Your task to perform on an android device: Open Google Chrome Image 0: 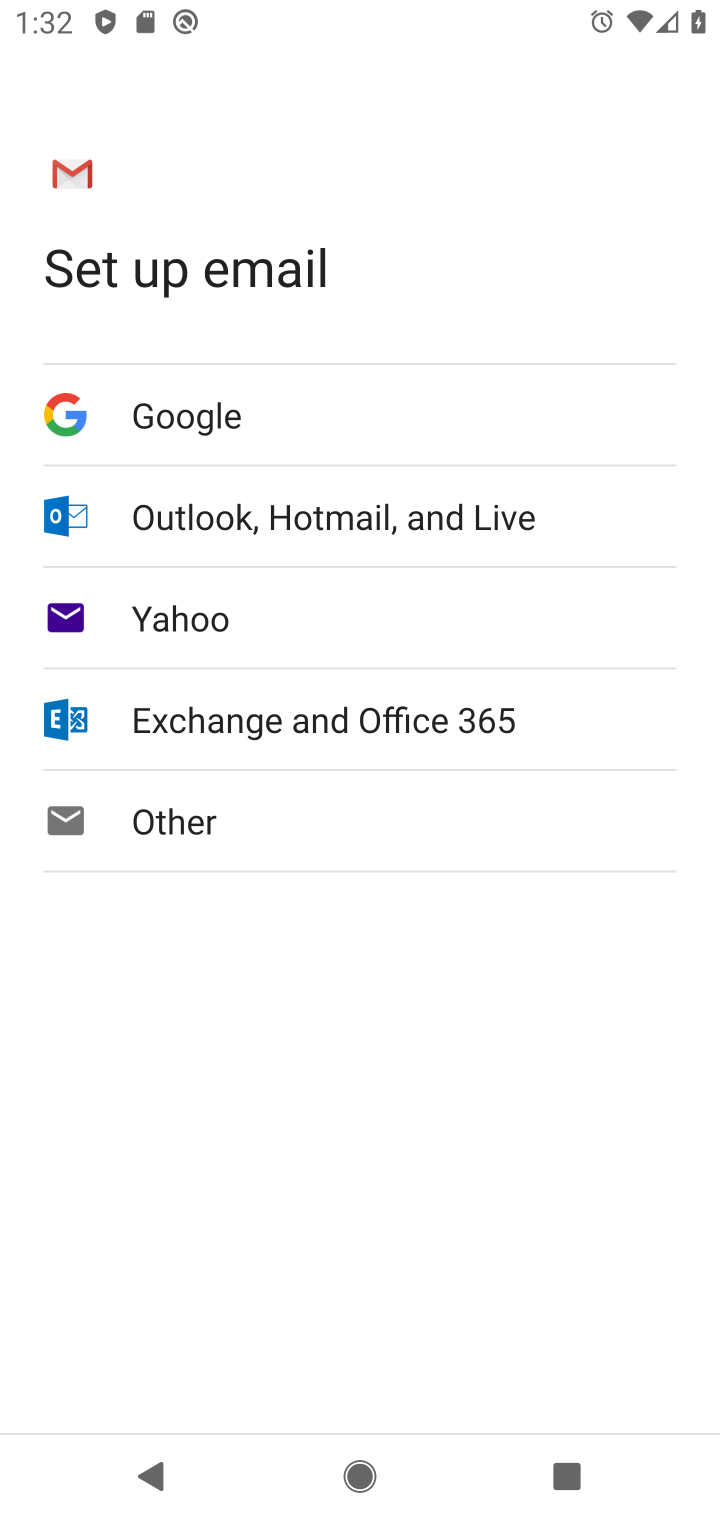
Step 0: press home button
Your task to perform on an android device: Open Google Chrome Image 1: 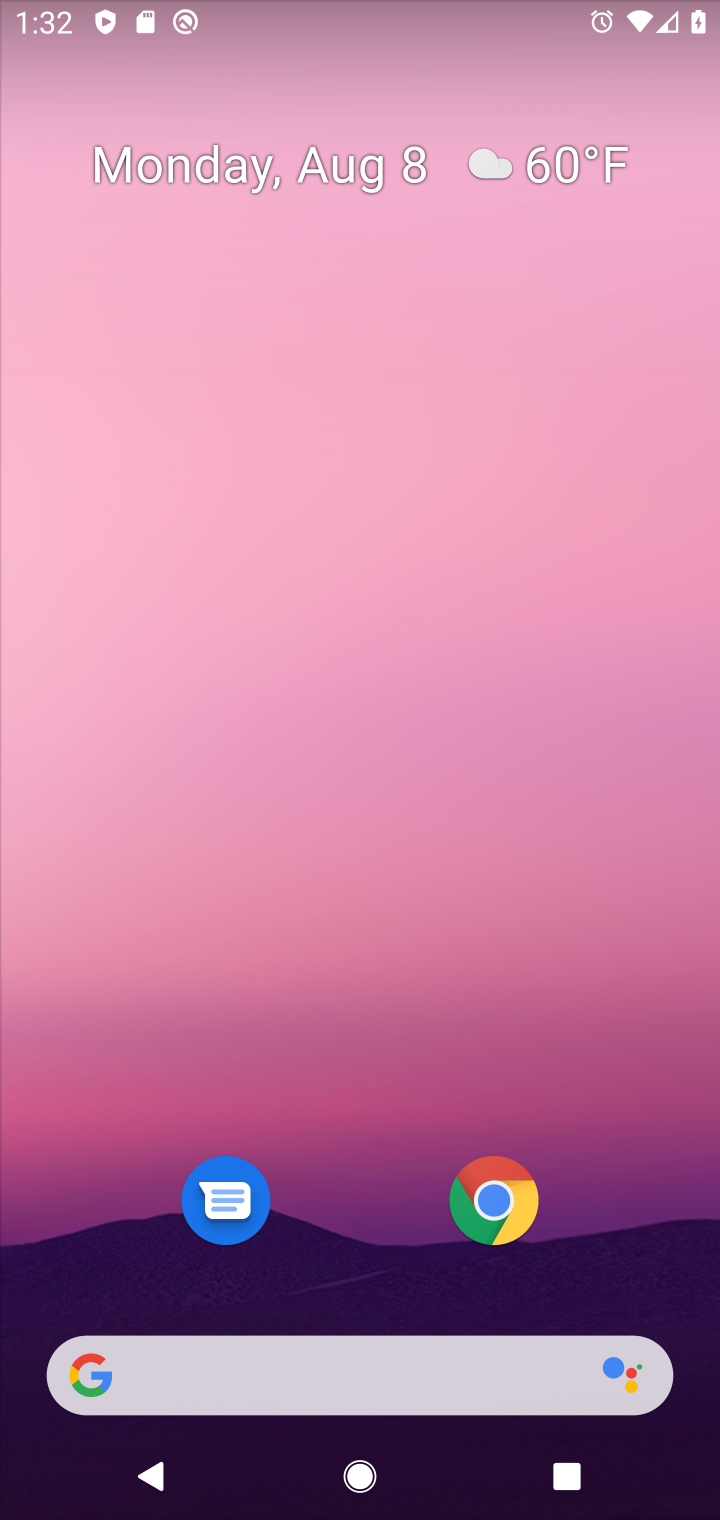
Step 1: click (488, 1193)
Your task to perform on an android device: Open Google Chrome Image 2: 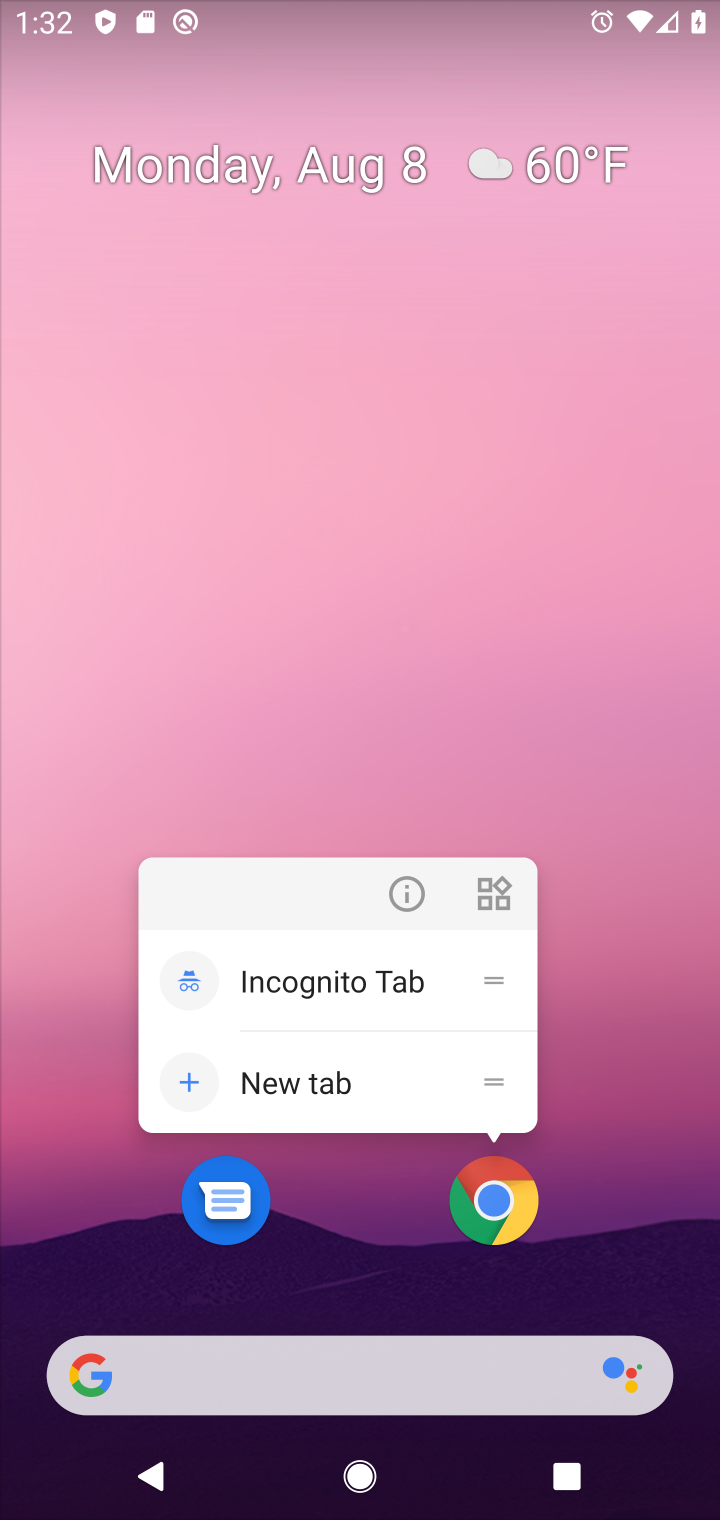
Step 2: click (481, 1195)
Your task to perform on an android device: Open Google Chrome Image 3: 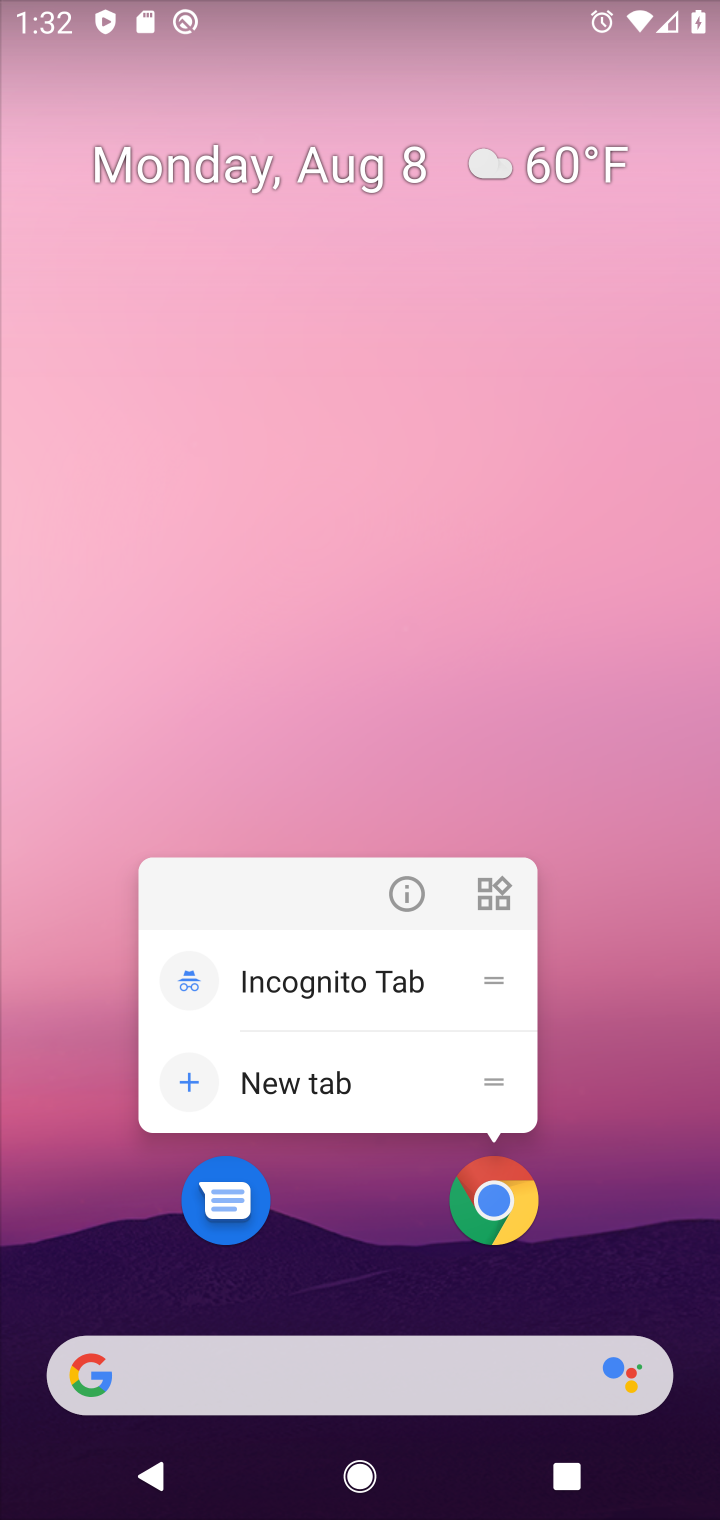
Step 3: click (541, 1242)
Your task to perform on an android device: Open Google Chrome Image 4: 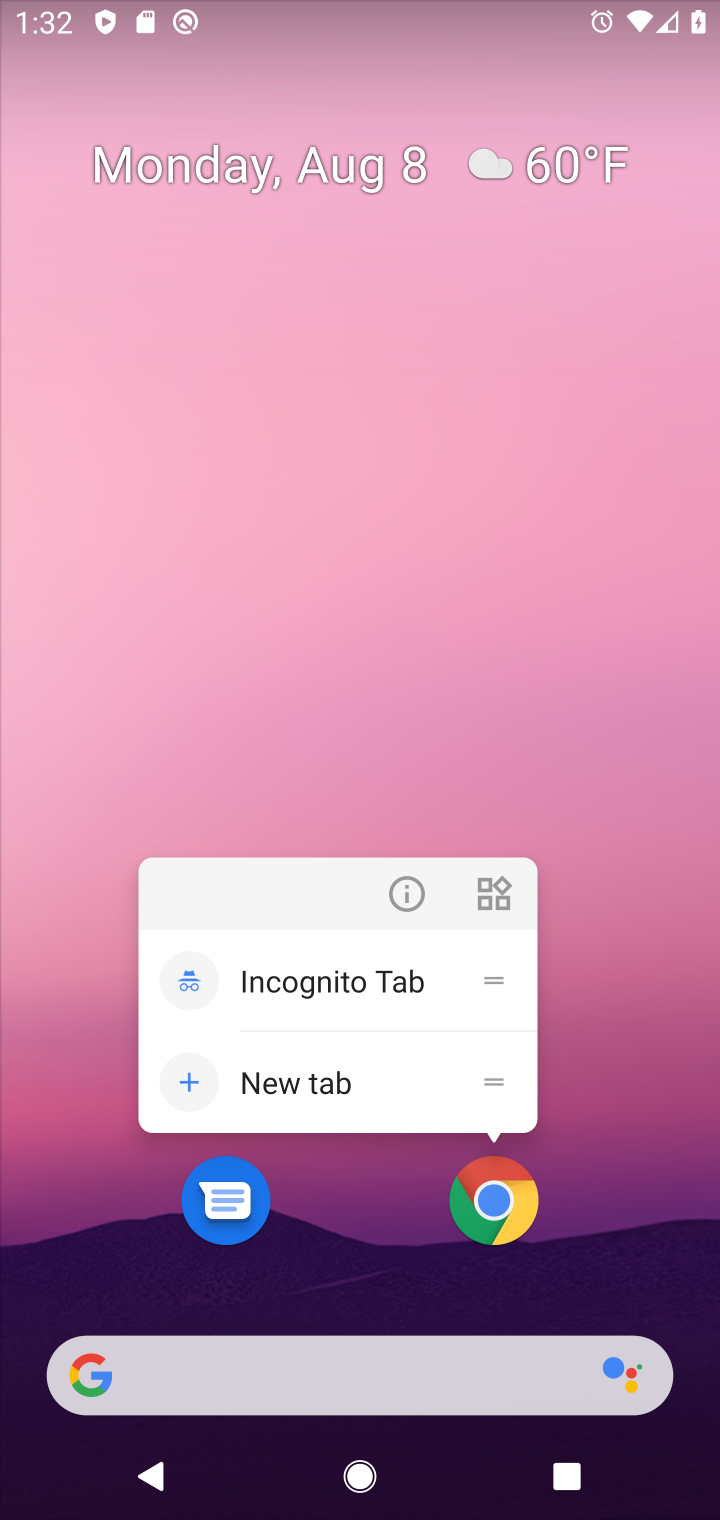
Step 4: task complete